Your task to perform on an android device: toggle wifi Image 0: 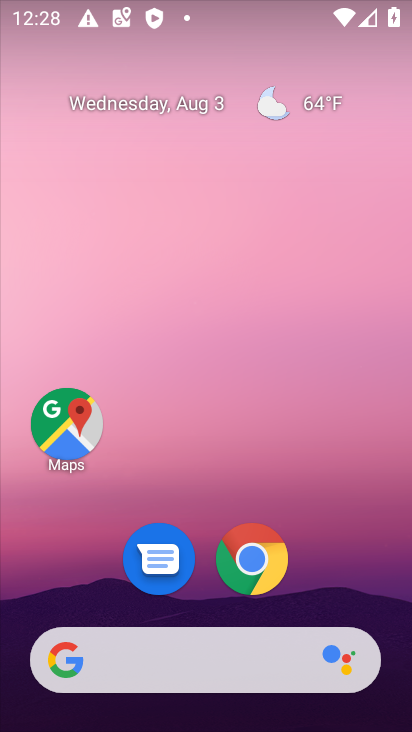
Step 0: drag from (202, 612) to (202, 16)
Your task to perform on an android device: toggle wifi Image 1: 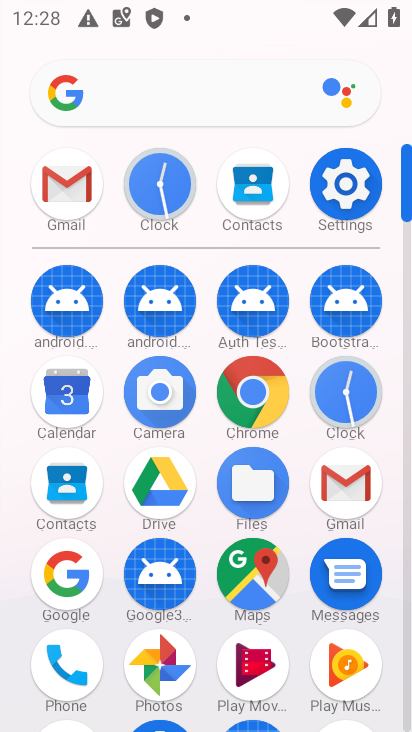
Step 1: click (347, 190)
Your task to perform on an android device: toggle wifi Image 2: 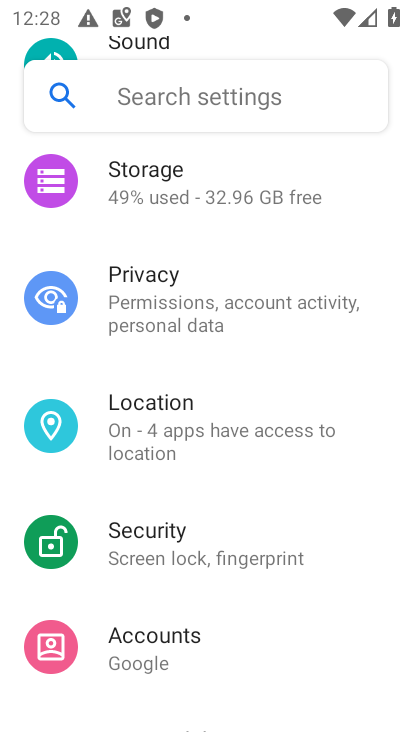
Step 2: drag from (173, 152) to (166, 628)
Your task to perform on an android device: toggle wifi Image 3: 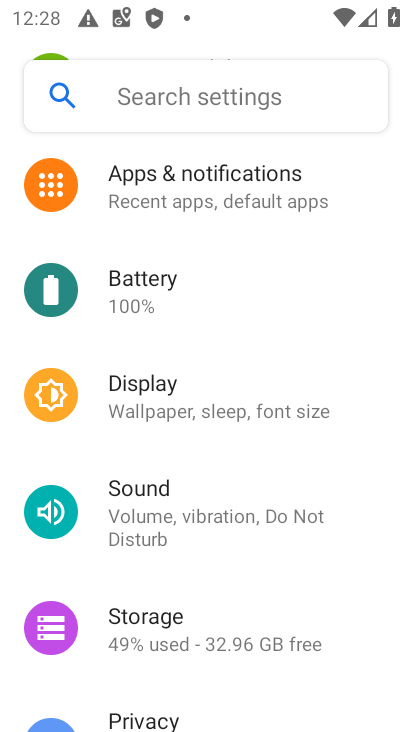
Step 3: drag from (202, 171) to (203, 567)
Your task to perform on an android device: toggle wifi Image 4: 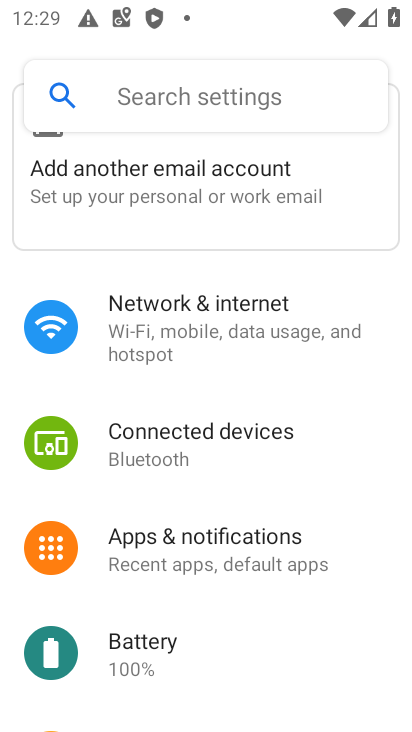
Step 4: click (168, 324)
Your task to perform on an android device: toggle wifi Image 5: 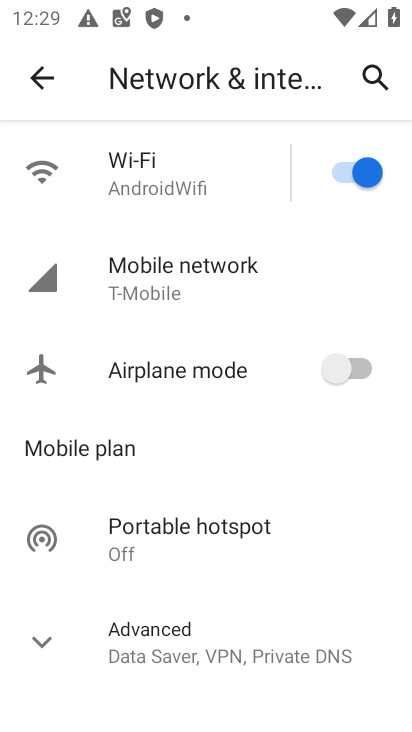
Step 5: click (344, 169)
Your task to perform on an android device: toggle wifi Image 6: 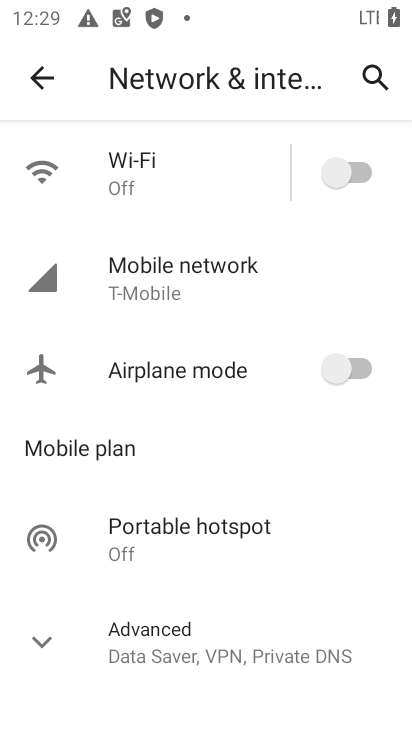
Step 6: task complete